Your task to perform on an android device: open app "VLC for Android" Image 0: 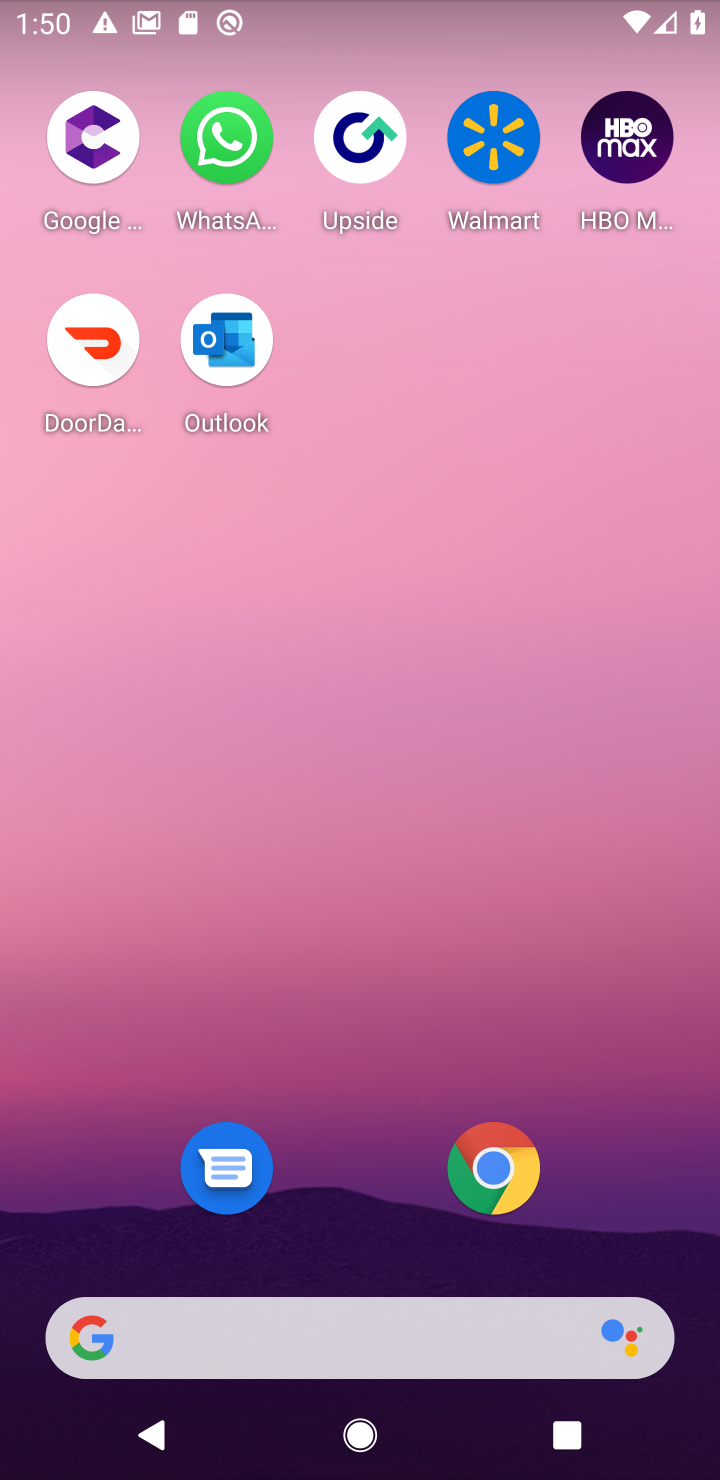
Step 0: drag from (252, 1339) to (475, 262)
Your task to perform on an android device: open app "VLC for Android" Image 1: 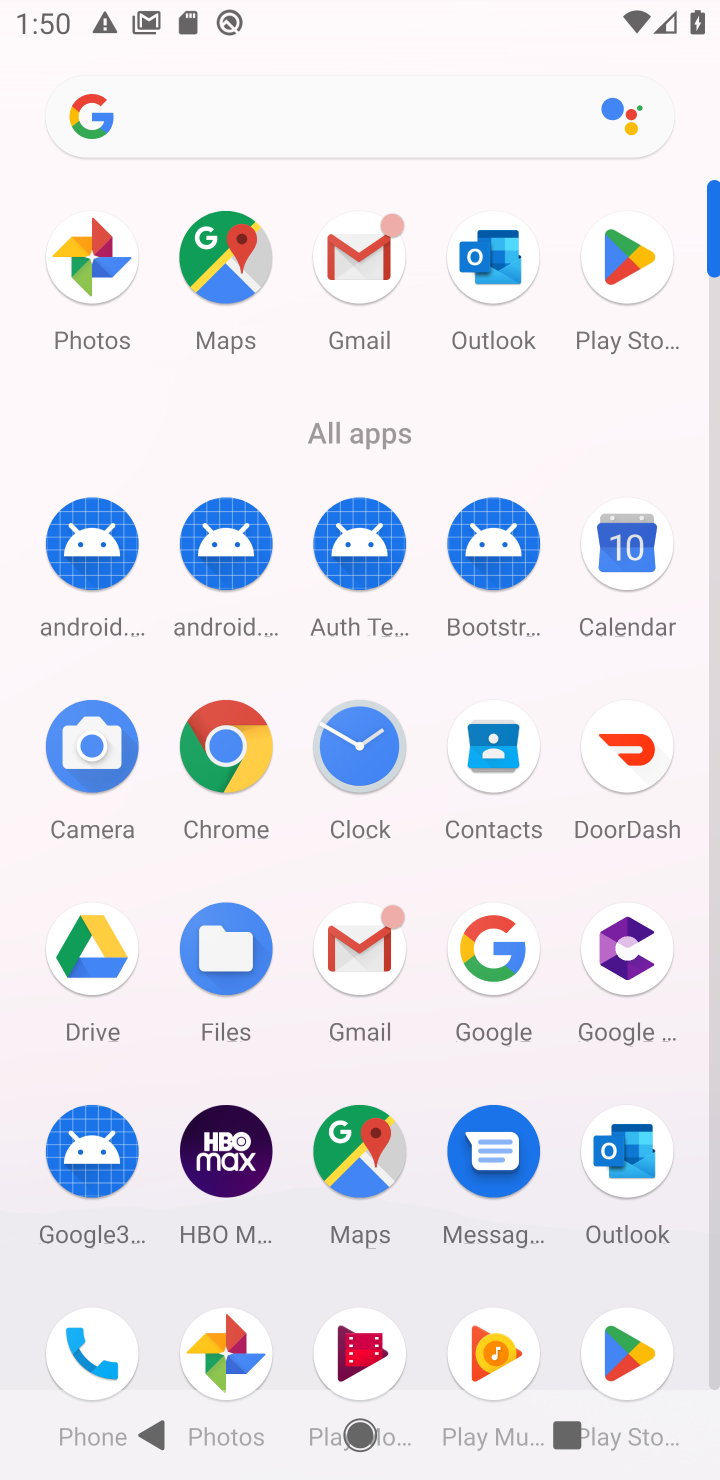
Step 1: click (625, 265)
Your task to perform on an android device: open app "VLC for Android" Image 2: 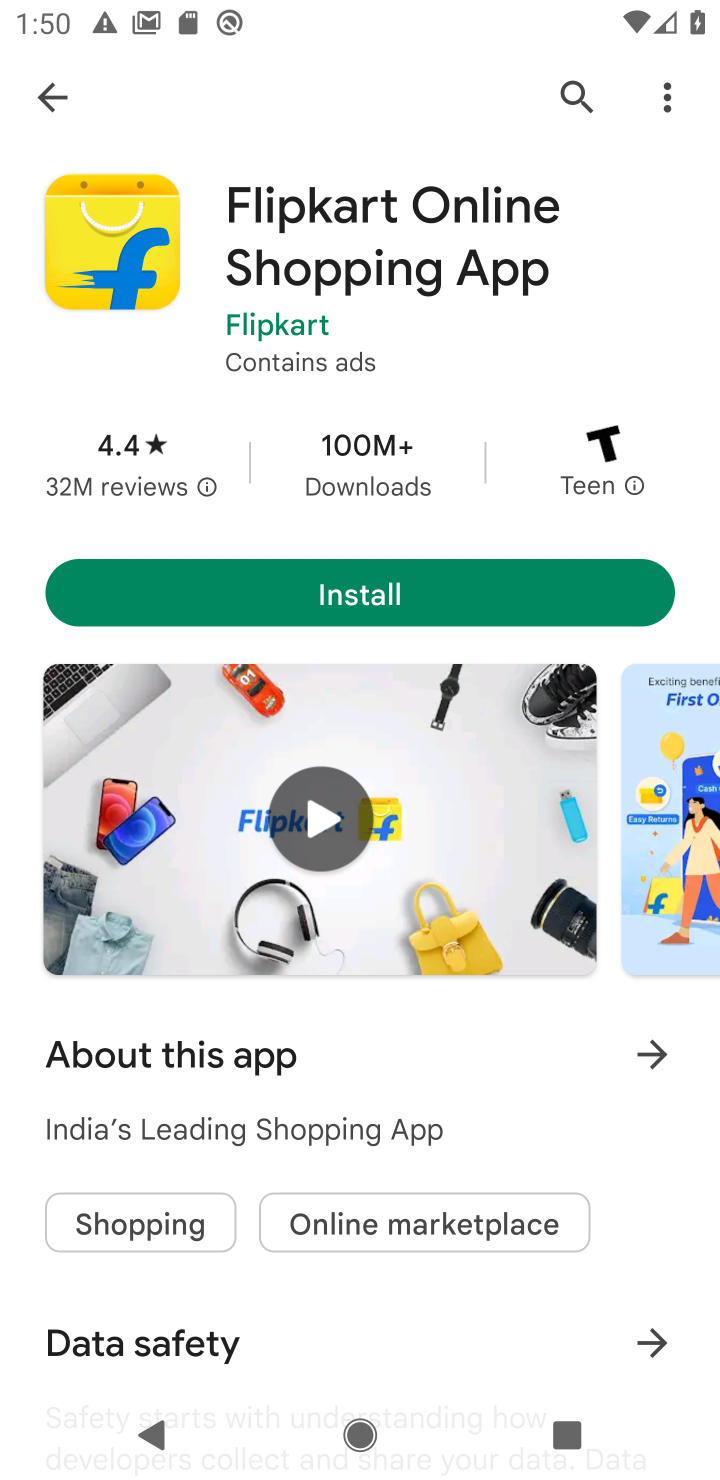
Step 2: press back button
Your task to perform on an android device: open app "VLC for Android" Image 3: 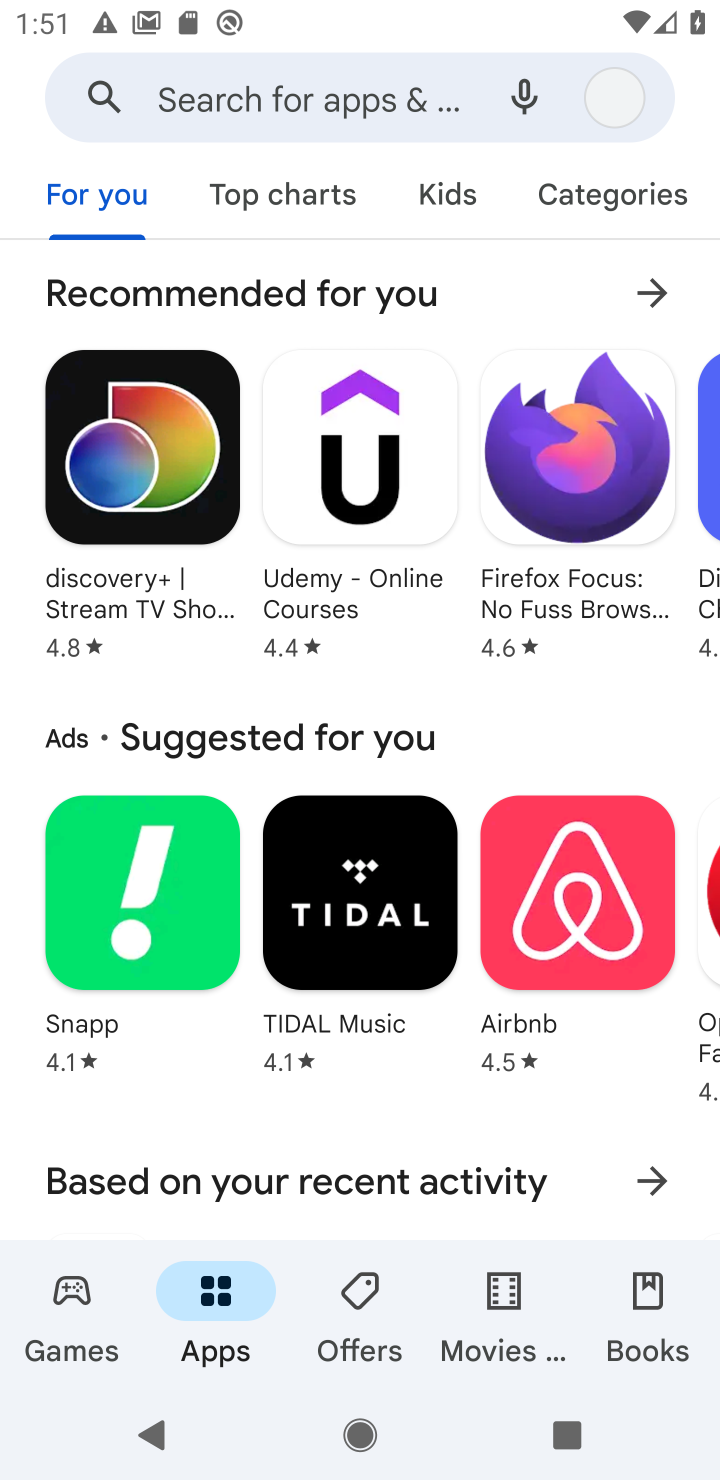
Step 3: click (329, 89)
Your task to perform on an android device: open app "VLC for Android" Image 4: 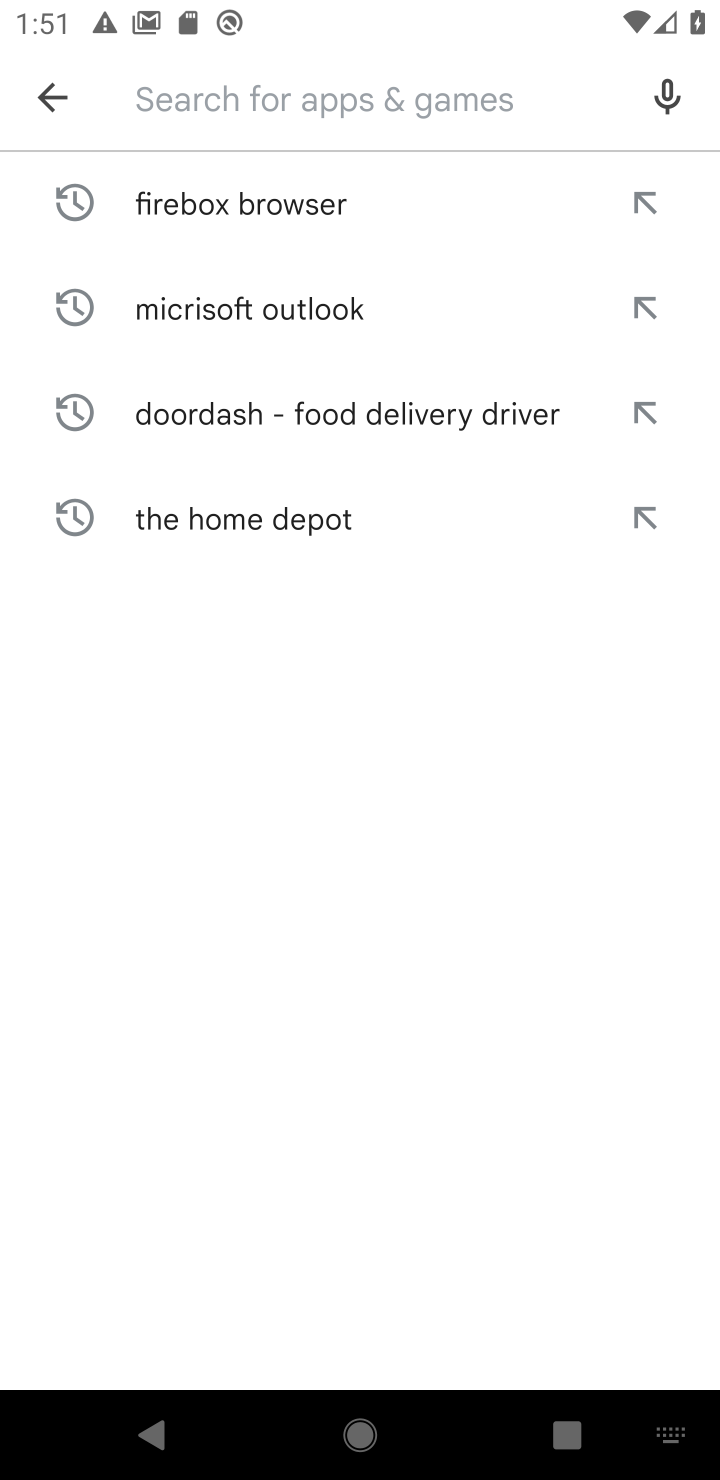
Step 4: type "VLC for Android"
Your task to perform on an android device: open app "VLC for Android" Image 5: 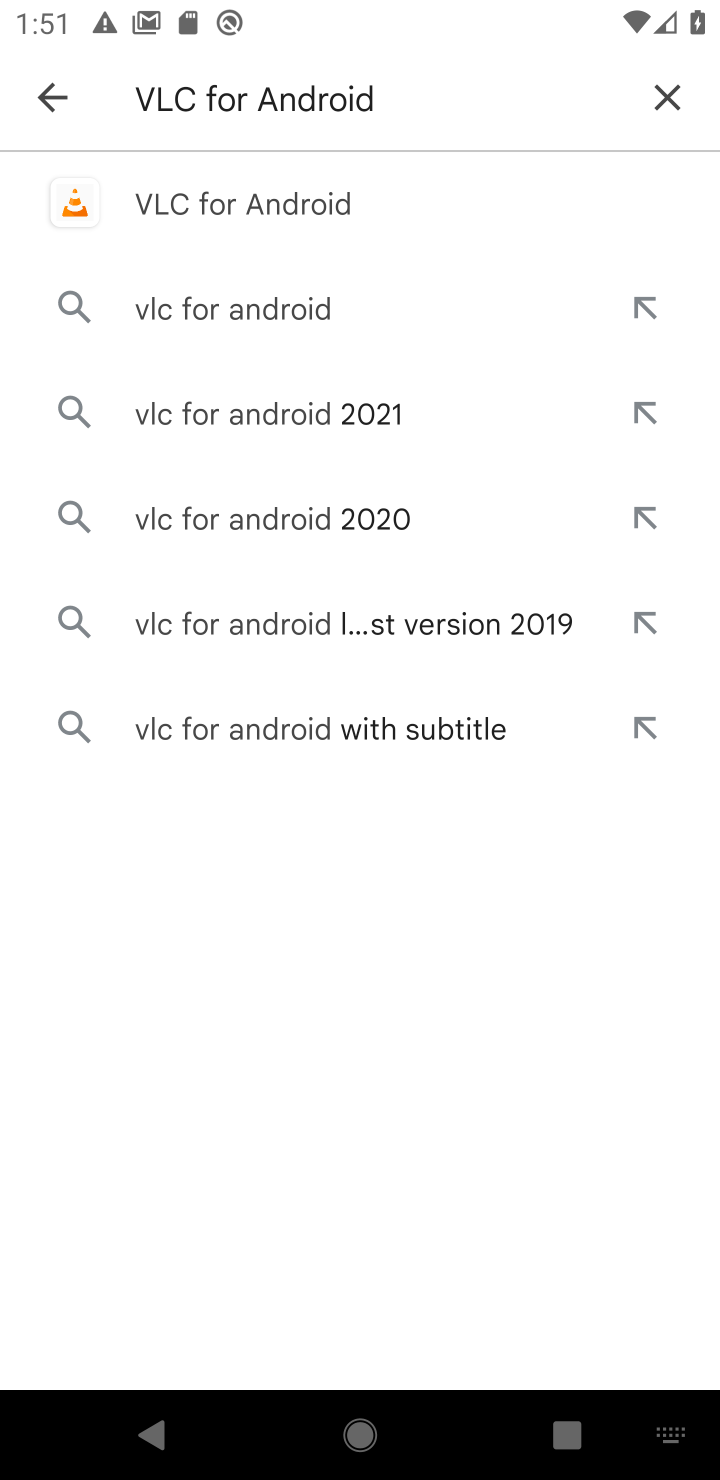
Step 5: click (288, 192)
Your task to perform on an android device: open app "VLC for Android" Image 6: 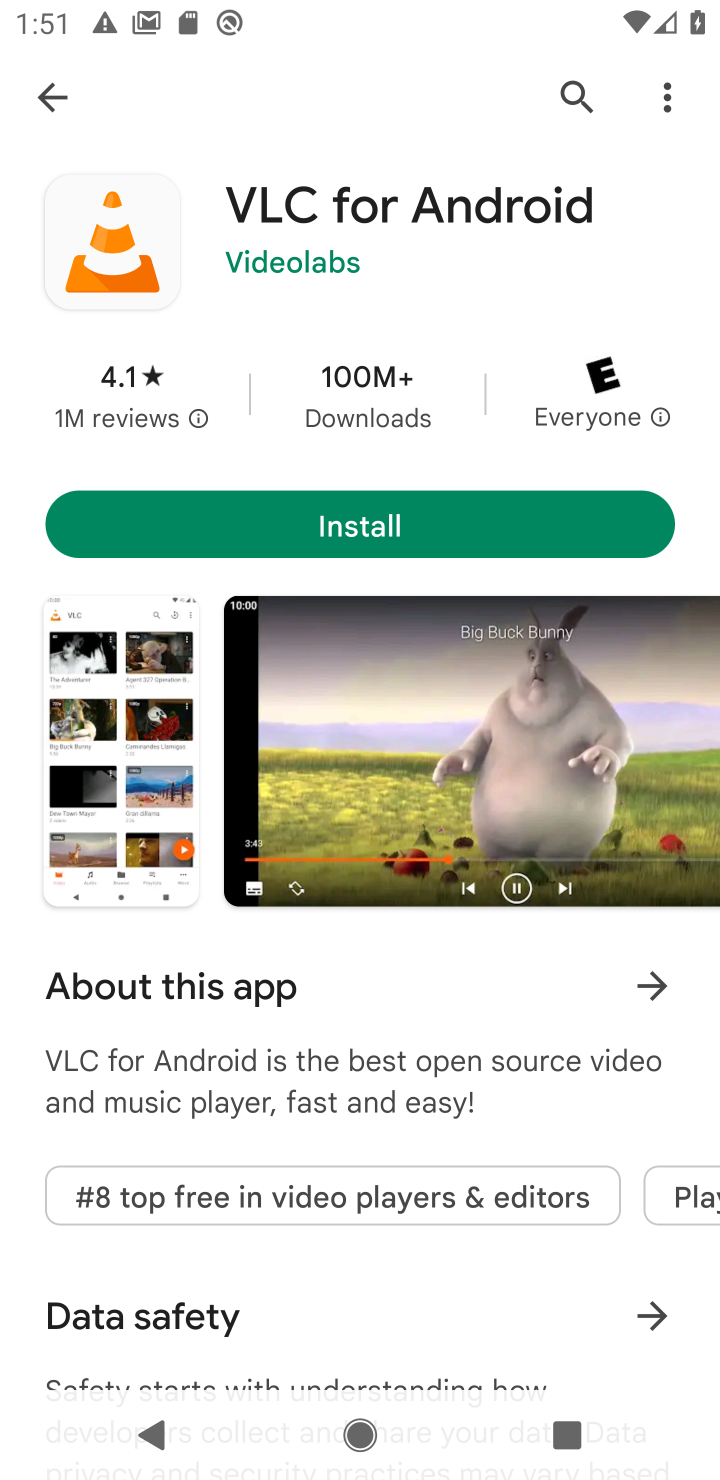
Step 6: task complete